Your task to perform on an android device: Open the calendar and show me this week's events? Image 0: 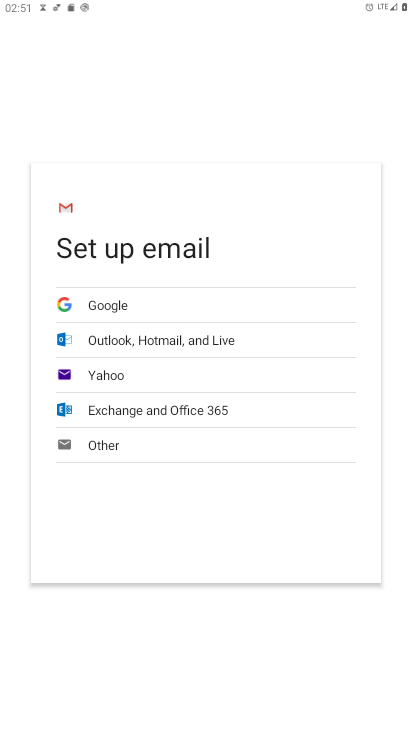
Step 0: press home button
Your task to perform on an android device: Open the calendar and show me this week's events? Image 1: 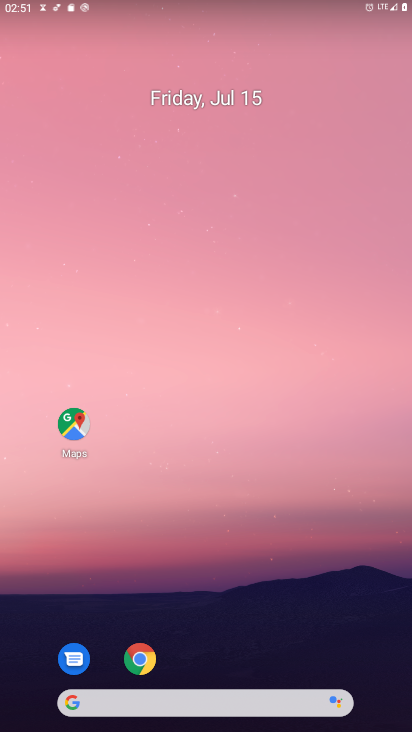
Step 1: drag from (234, 646) to (232, 332)
Your task to perform on an android device: Open the calendar and show me this week's events? Image 2: 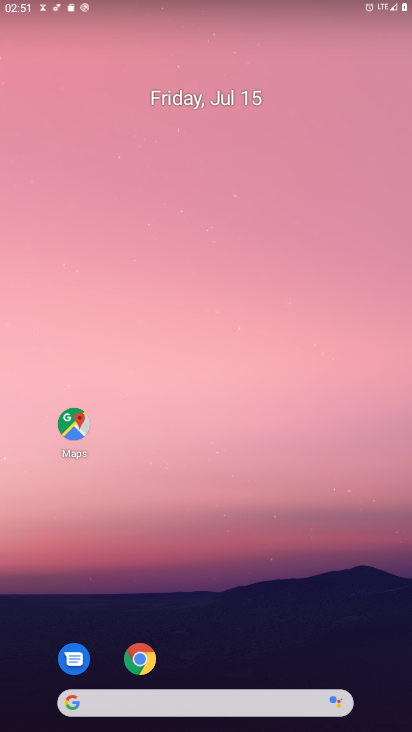
Step 2: drag from (248, 675) to (244, 153)
Your task to perform on an android device: Open the calendar and show me this week's events? Image 3: 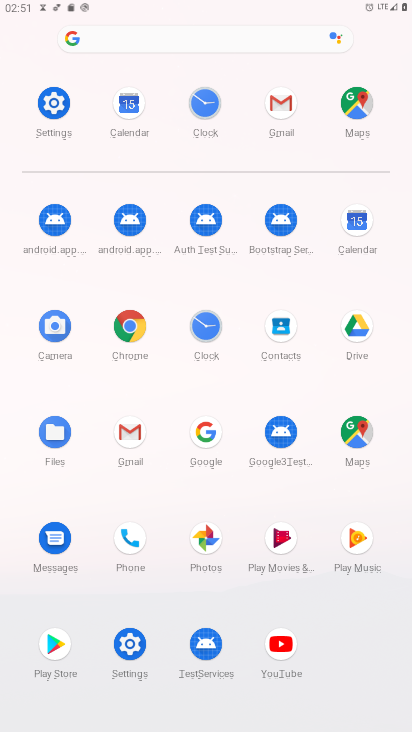
Step 3: click (345, 428)
Your task to perform on an android device: Open the calendar and show me this week's events? Image 4: 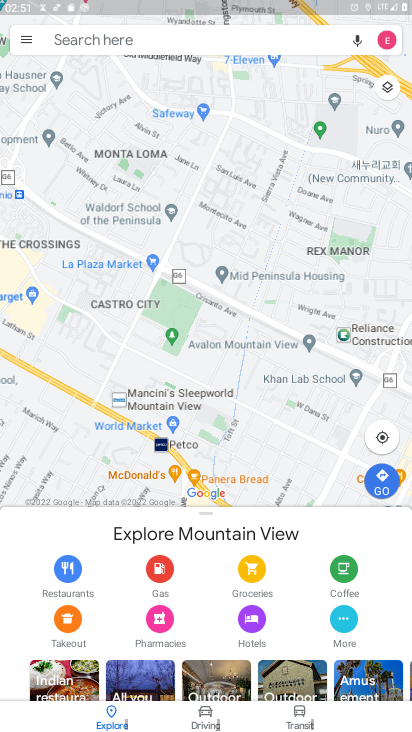
Step 4: press home button
Your task to perform on an android device: Open the calendar and show me this week's events? Image 5: 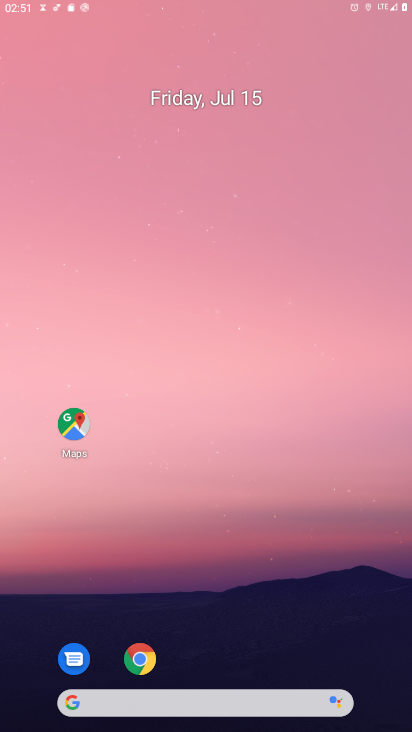
Step 5: drag from (205, 608) to (220, 208)
Your task to perform on an android device: Open the calendar and show me this week's events? Image 6: 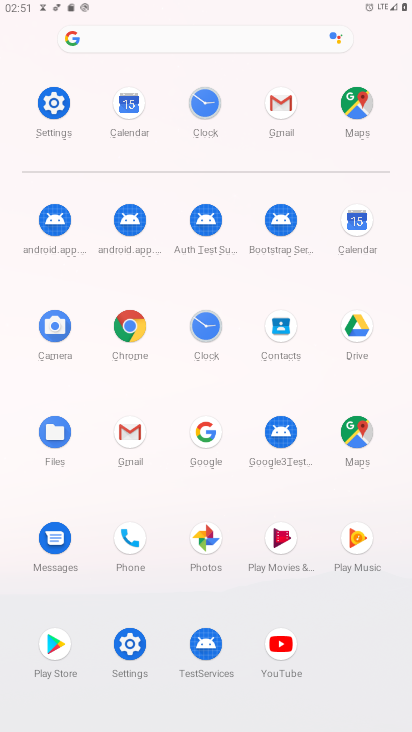
Step 6: click (367, 200)
Your task to perform on an android device: Open the calendar and show me this week's events? Image 7: 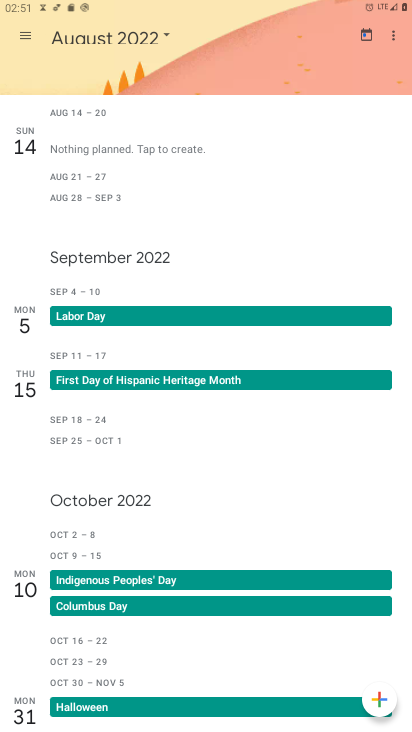
Step 7: click (22, 33)
Your task to perform on an android device: Open the calendar and show me this week's events? Image 8: 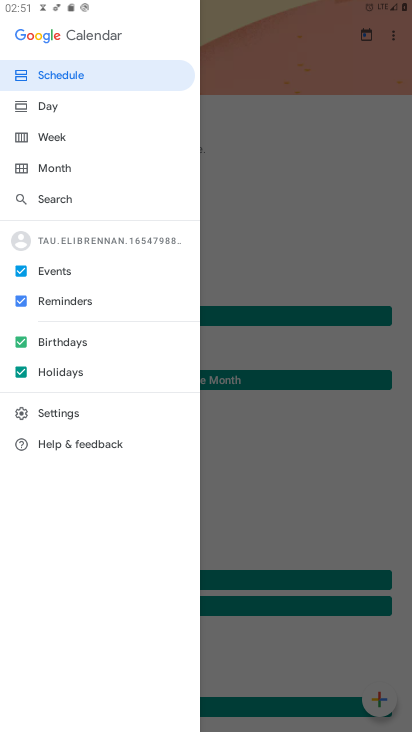
Step 8: click (44, 163)
Your task to perform on an android device: Open the calendar and show me this week's events? Image 9: 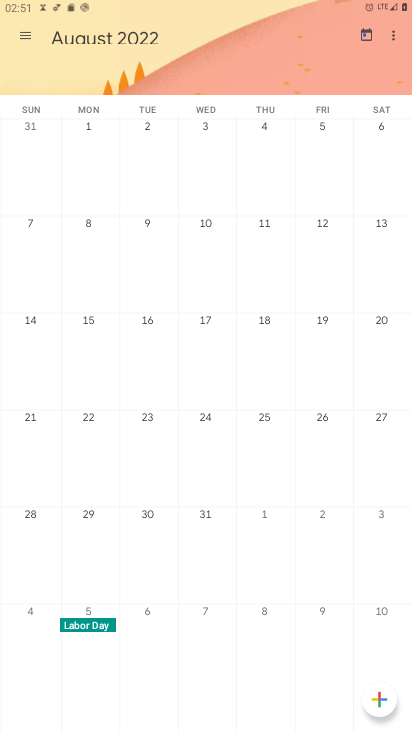
Step 9: drag from (5, 344) to (351, 447)
Your task to perform on an android device: Open the calendar and show me this week's events? Image 10: 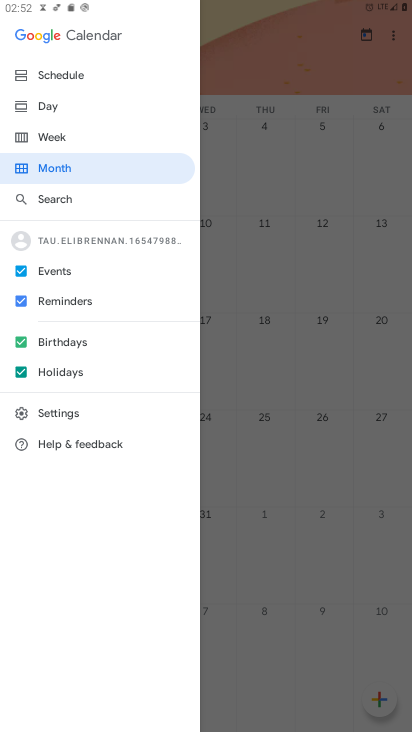
Step 10: click (247, 224)
Your task to perform on an android device: Open the calendar and show me this week's events? Image 11: 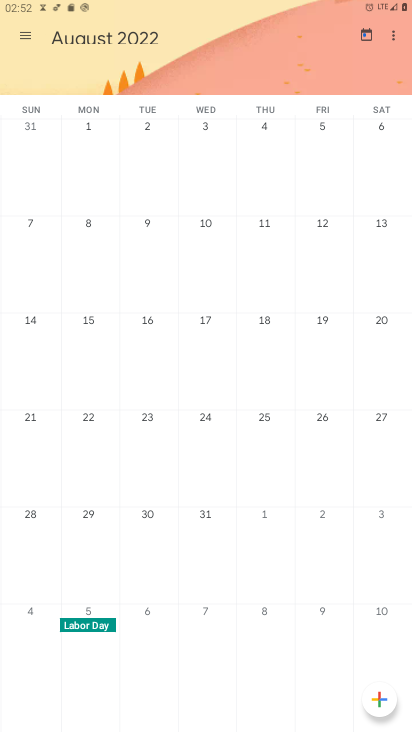
Step 11: drag from (124, 289) to (397, 379)
Your task to perform on an android device: Open the calendar and show me this week's events? Image 12: 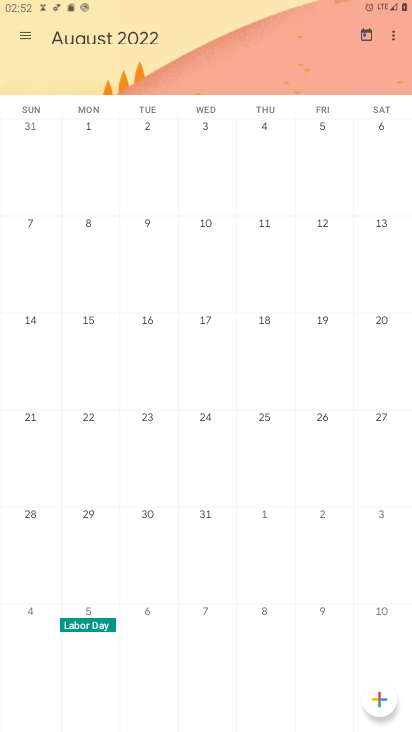
Step 12: drag from (38, 298) to (409, 517)
Your task to perform on an android device: Open the calendar and show me this week's events? Image 13: 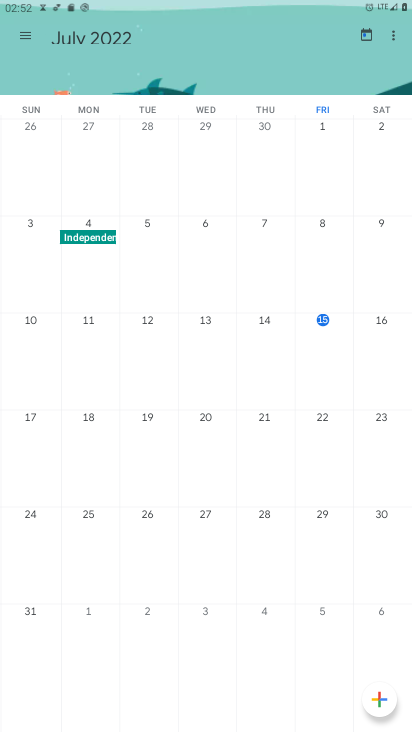
Step 13: click (22, 34)
Your task to perform on an android device: Open the calendar and show me this week's events? Image 14: 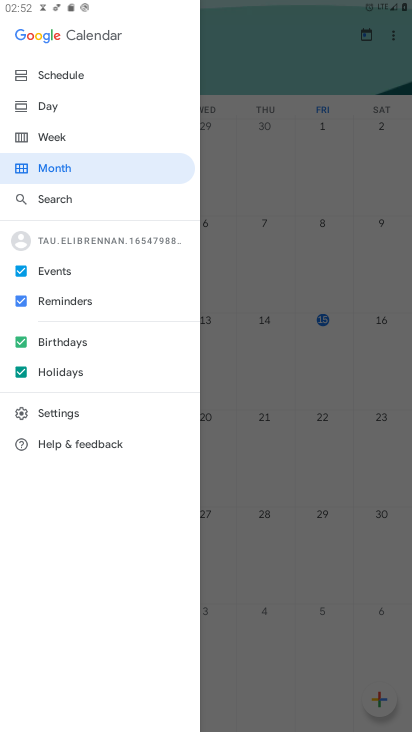
Step 14: click (55, 275)
Your task to perform on an android device: Open the calendar and show me this week's events? Image 15: 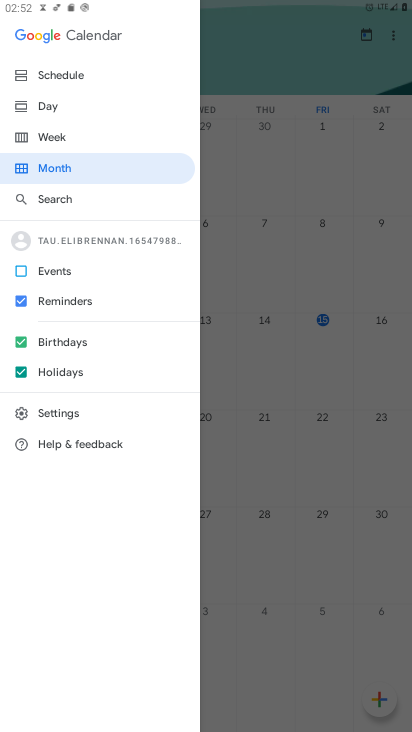
Step 15: click (55, 275)
Your task to perform on an android device: Open the calendar and show me this week's events? Image 16: 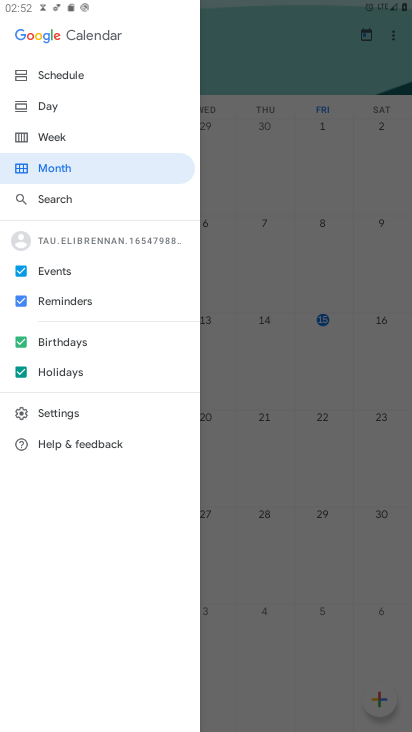
Step 16: click (64, 142)
Your task to perform on an android device: Open the calendar and show me this week's events? Image 17: 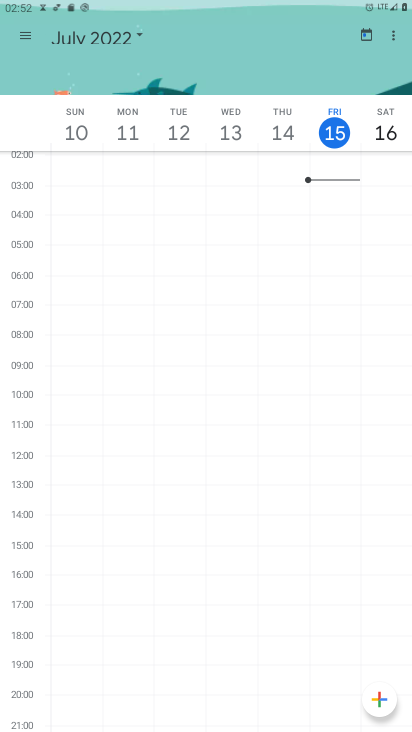
Step 17: task complete